Your task to perform on an android device: open app "Venmo" (install if not already installed), go to login, and select forgot password Image 0: 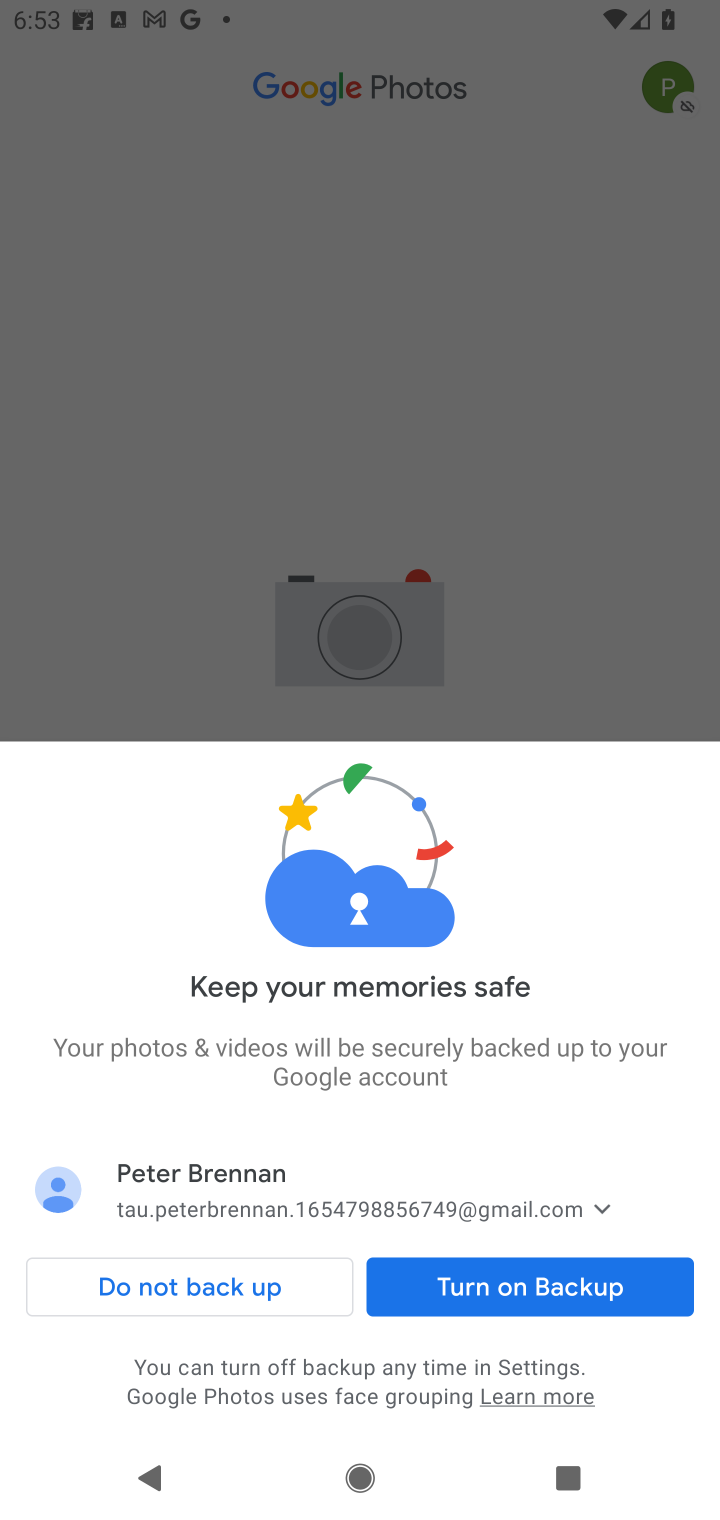
Step 0: press home button
Your task to perform on an android device: open app "Venmo" (install if not already installed), go to login, and select forgot password Image 1: 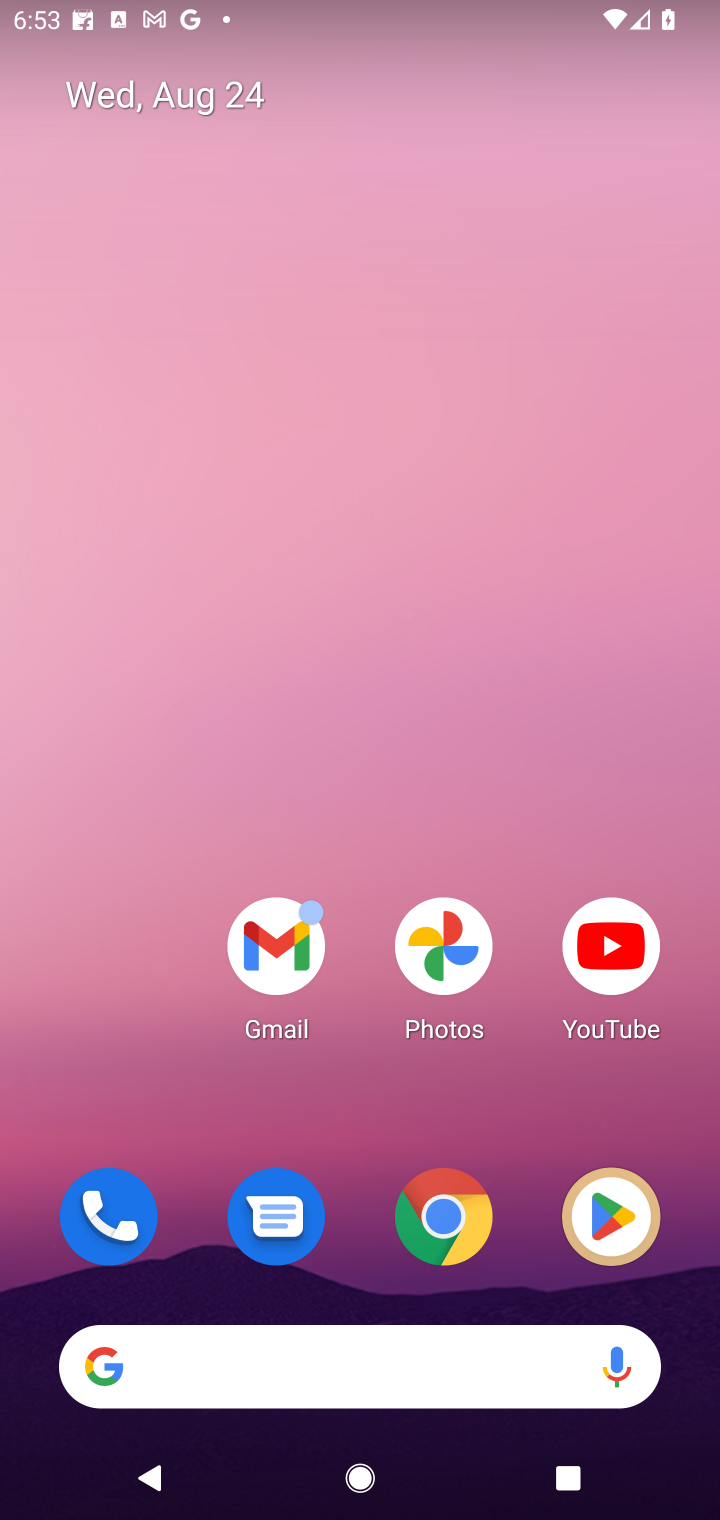
Step 1: click (644, 1198)
Your task to perform on an android device: open app "Venmo" (install if not already installed), go to login, and select forgot password Image 2: 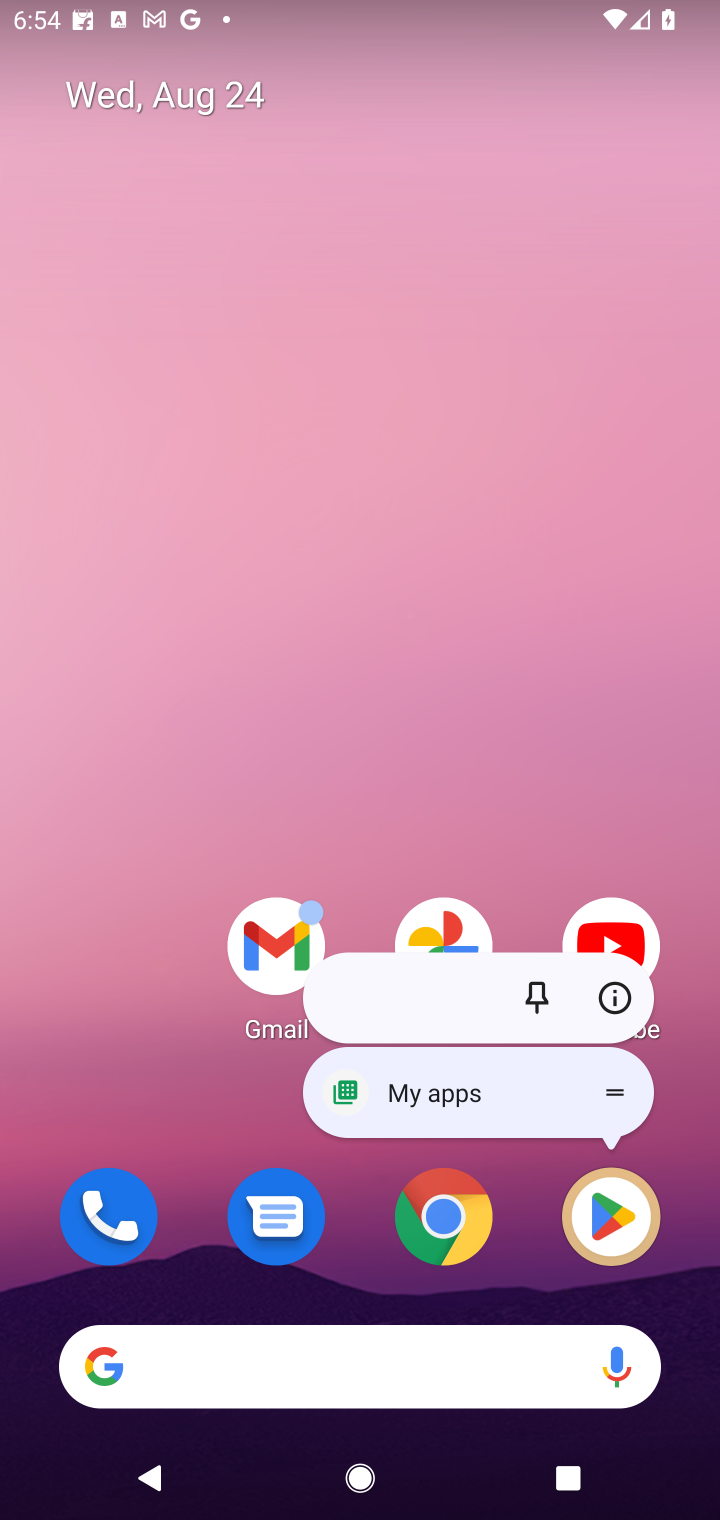
Step 2: click (587, 1213)
Your task to perform on an android device: open app "Venmo" (install if not already installed), go to login, and select forgot password Image 3: 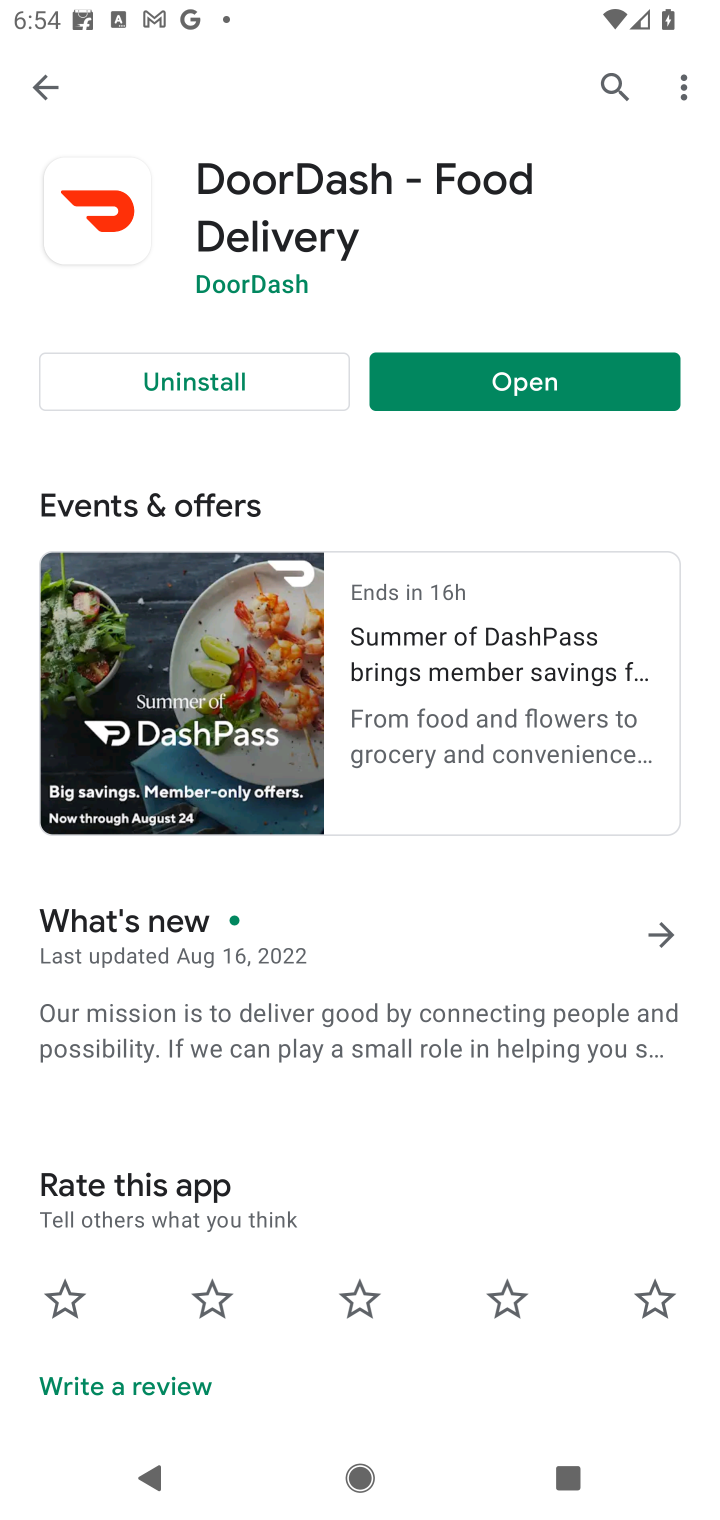
Step 3: click (617, 89)
Your task to perform on an android device: open app "Venmo" (install if not already installed), go to login, and select forgot password Image 4: 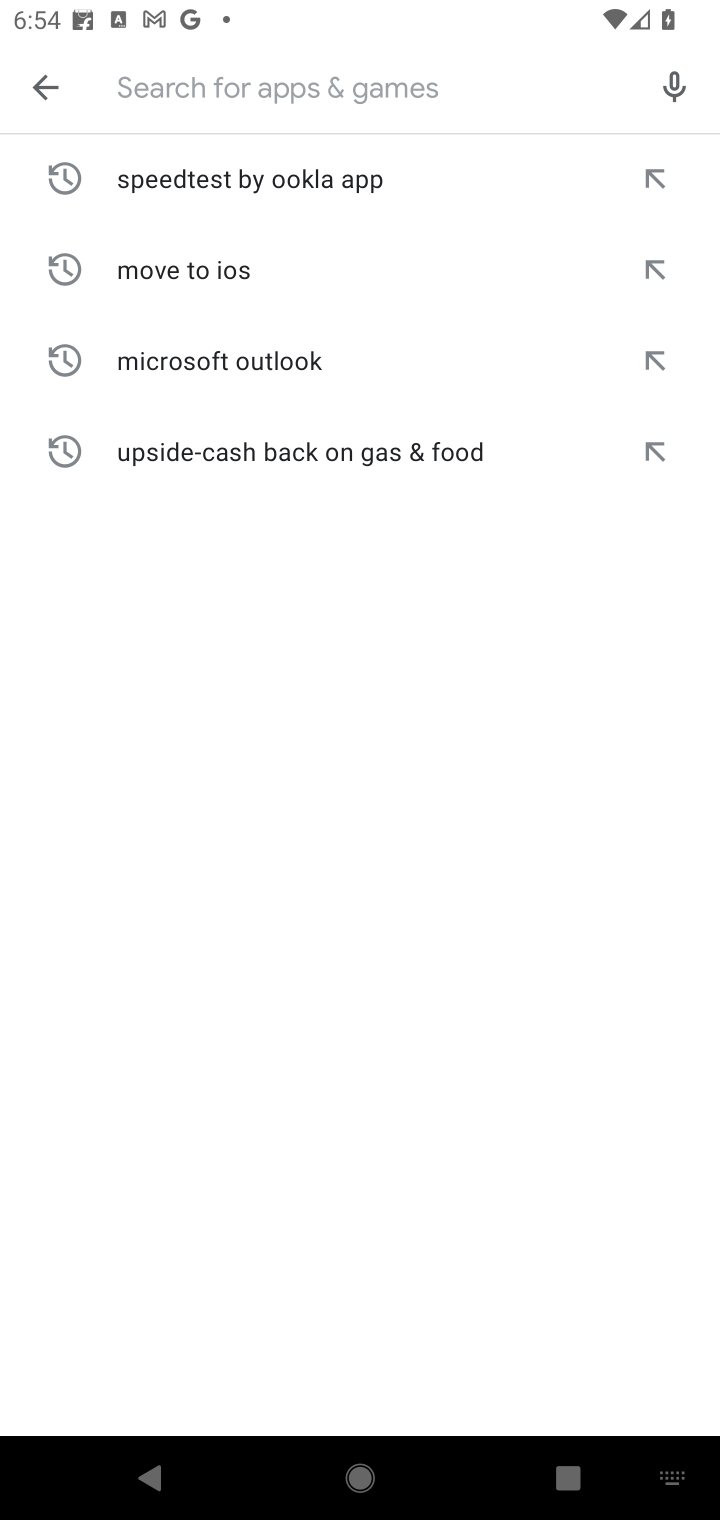
Step 4: type "Venmo"
Your task to perform on an android device: open app "Venmo" (install if not already installed), go to login, and select forgot password Image 5: 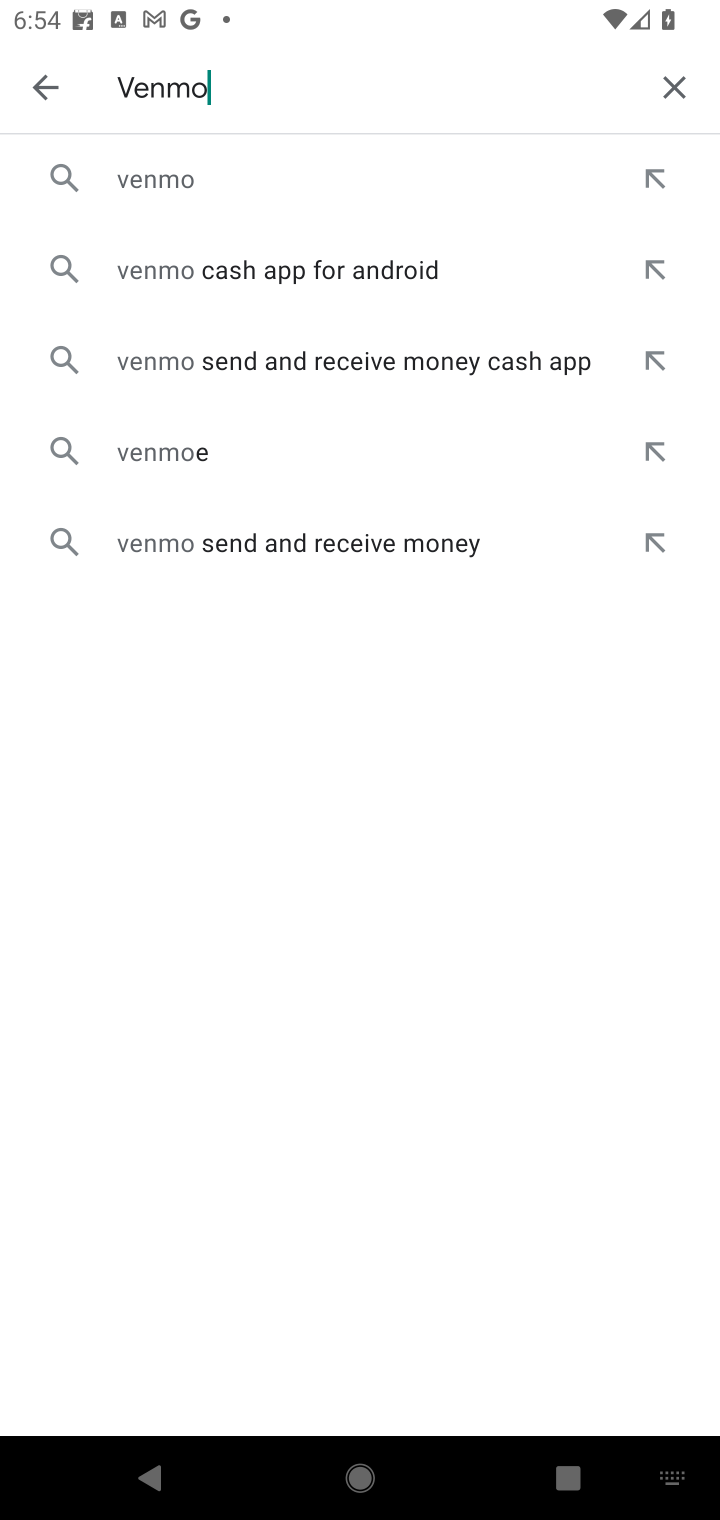
Step 5: click (246, 184)
Your task to perform on an android device: open app "Venmo" (install if not already installed), go to login, and select forgot password Image 6: 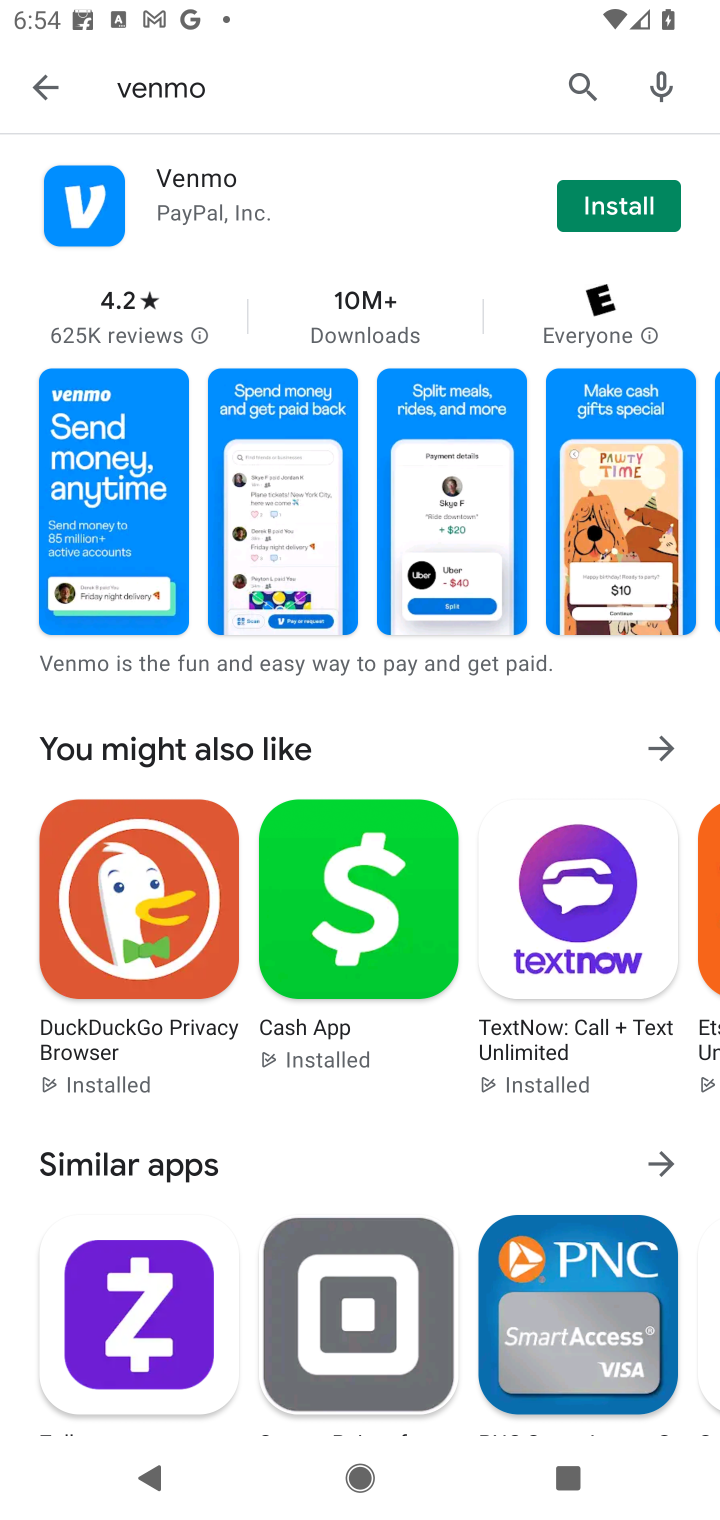
Step 6: click (643, 191)
Your task to perform on an android device: open app "Venmo" (install if not already installed), go to login, and select forgot password Image 7: 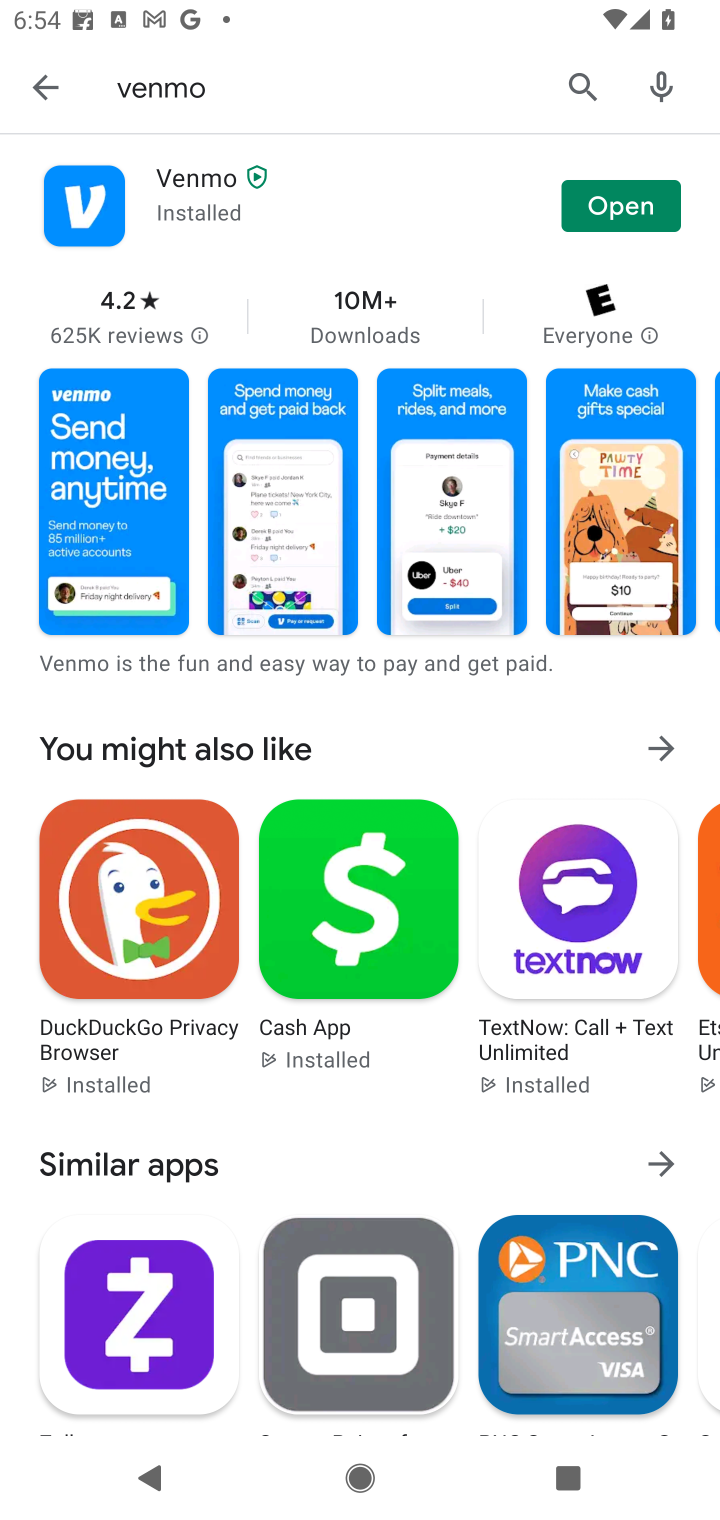
Step 7: click (643, 191)
Your task to perform on an android device: open app "Venmo" (install if not already installed), go to login, and select forgot password Image 8: 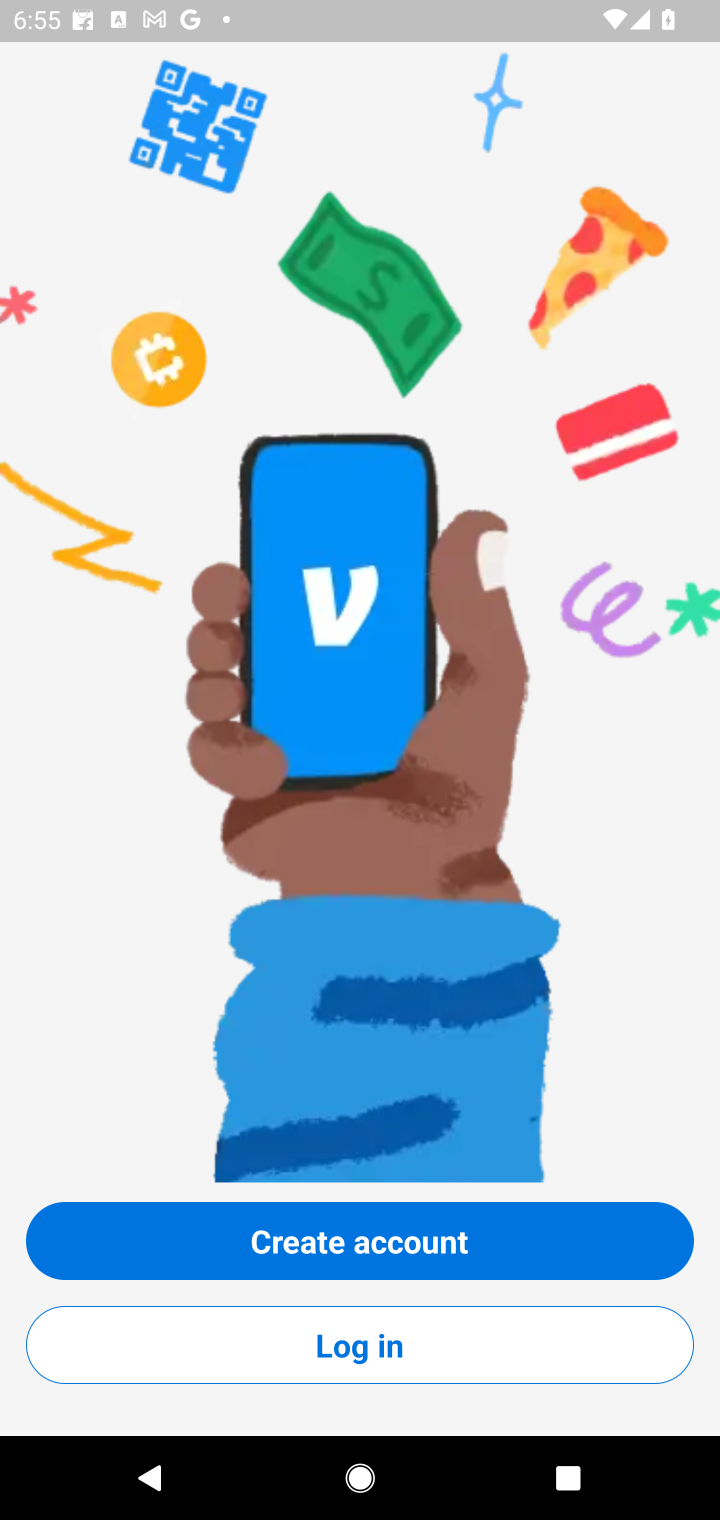
Step 8: task complete